Your task to perform on an android device: check data usage Image 0: 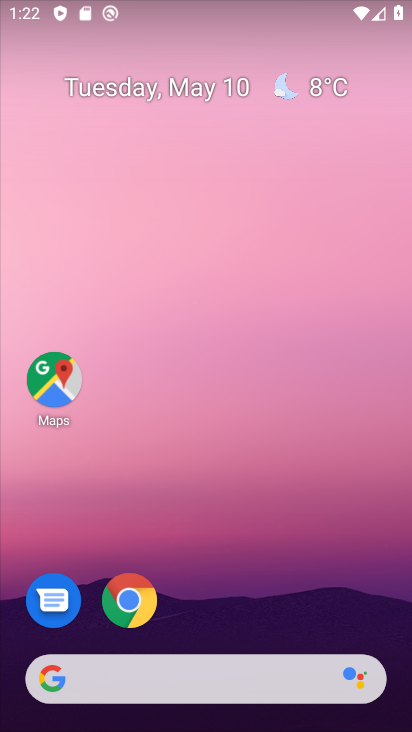
Step 0: drag from (209, 632) to (196, 174)
Your task to perform on an android device: check data usage Image 1: 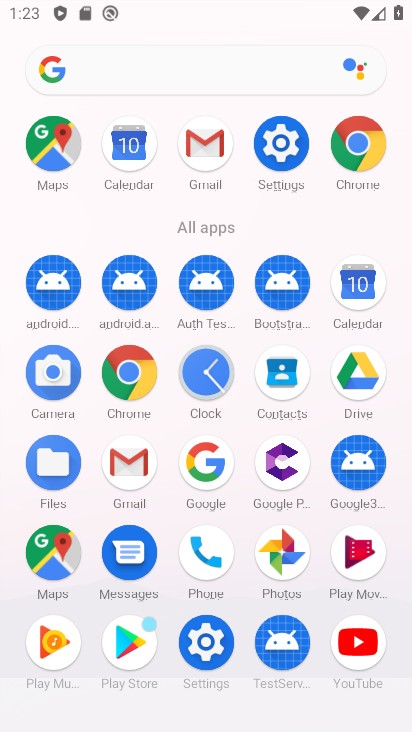
Step 1: click (277, 132)
Your task to perform on an android device: check data usage Image 2: 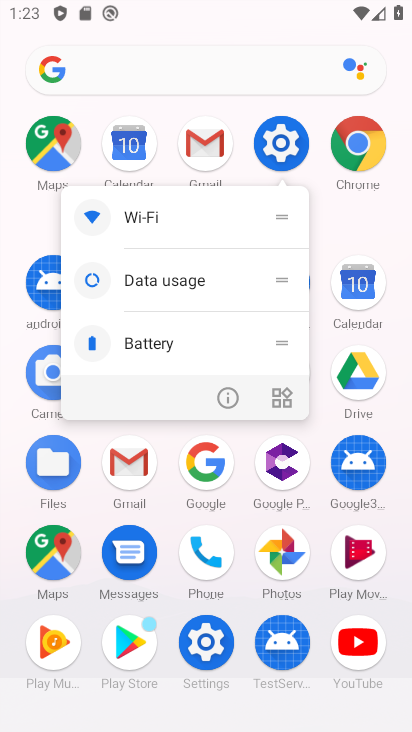
Step 2: click (283, 143)
Your task to perform on an android device: check data usage Image 3: 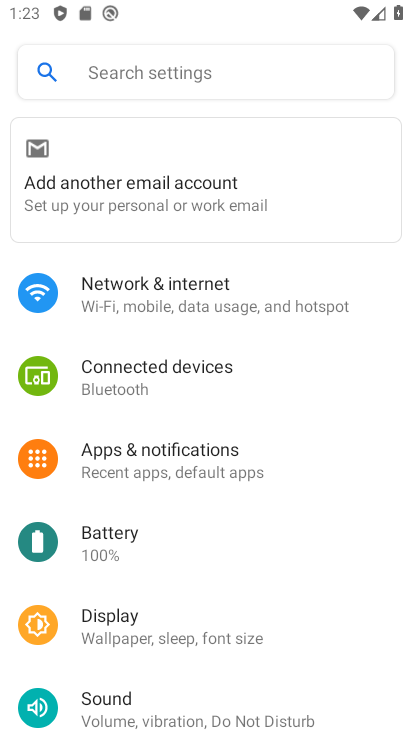
Step 3: click (181, 296)
Your task to perform on an android device: check data usage Image 4: 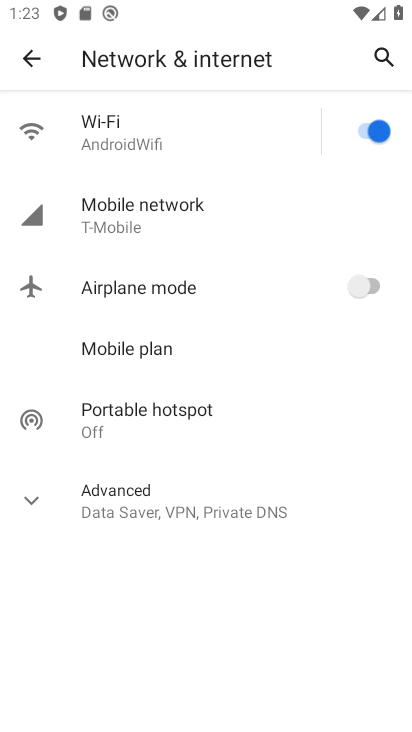
Step 4: click (167, 212)
Your task to perform on an android device: check data usage Image 5: 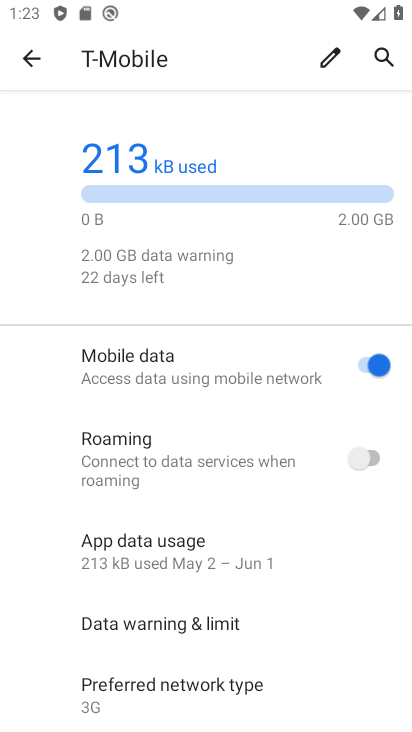
Step 5: click (203, 551)
Your task to perform on an android device: check data usage Image 6: 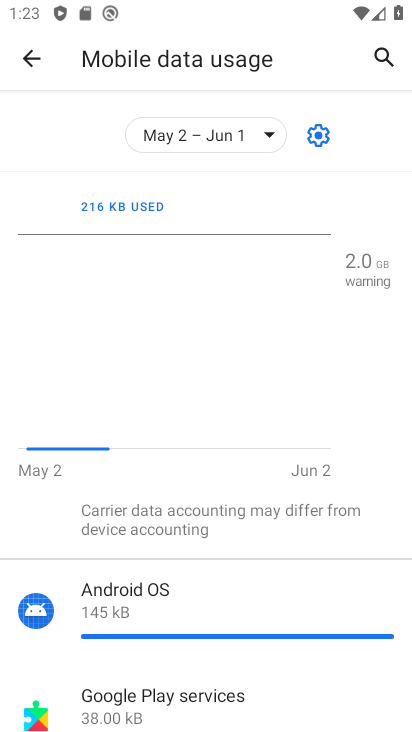
Step 6: task complete